Your task to perform on an android device: remove spam from my inbox in the gmail app Image 0: 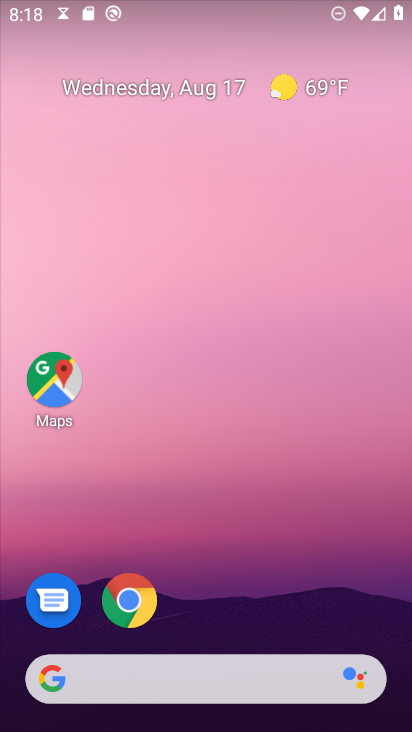
Step 0: press home button
Your task to perform on an android device: remove spam from my inbox in the gmail app Image 1: 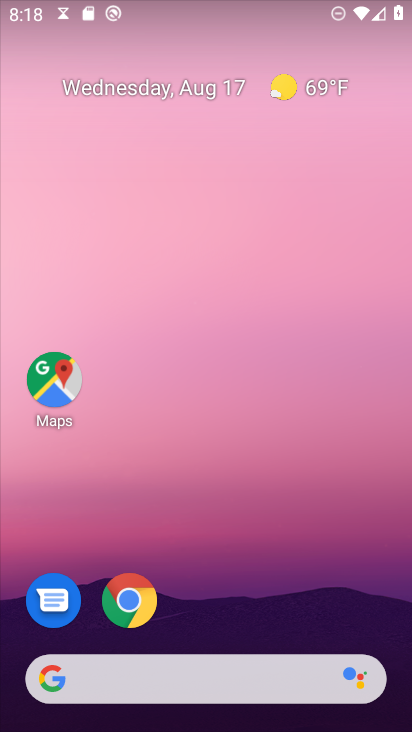
Step 1: drag from (252, 600) to (194, 84)
Your task to perform on an android device: remove spam from my inbox in the gmail app Image 2: 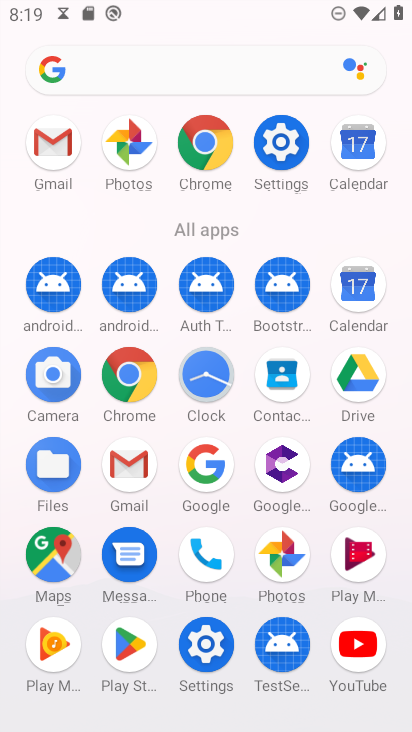
Step 2: click (42, 153)
Your task to perform on an android device: remove spam from my inbox in the gmail app Image 3: 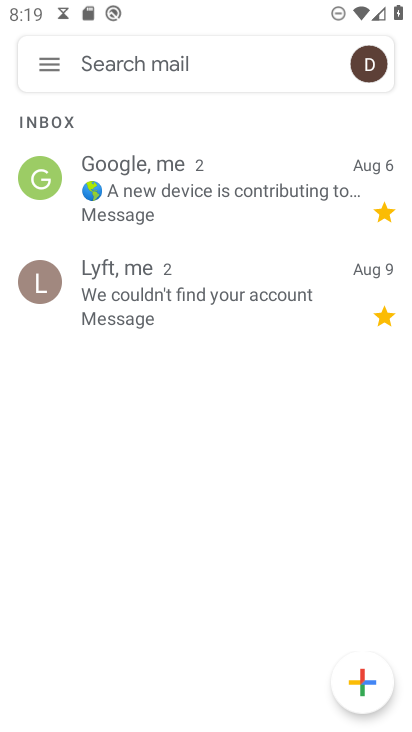
Step 3: click (237, 191)
Your task to perform on an android device: remove spam from my inbox in the gmail app Image 4: 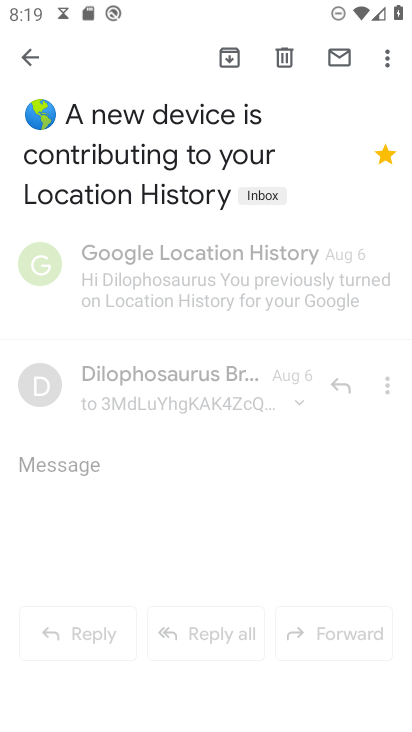
Step 4: click (387, 52)
Your task to perform on an android device: remove spam from my inbox in the gmail app Image 5: 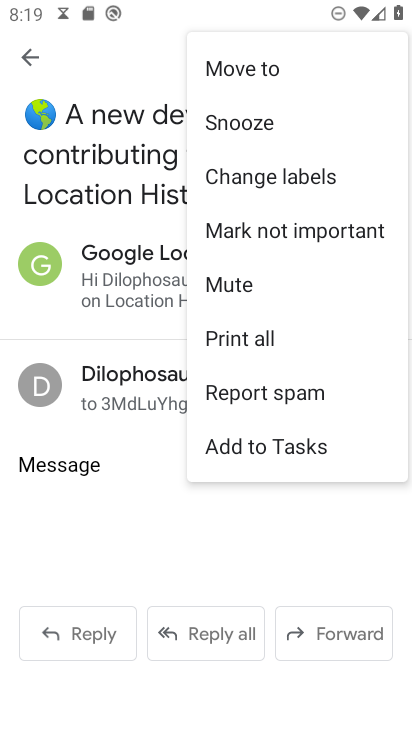
Step 5: click (254, 393)
Your task to perform on an android device: remove spam from my inbox in the gmail app Image 6: 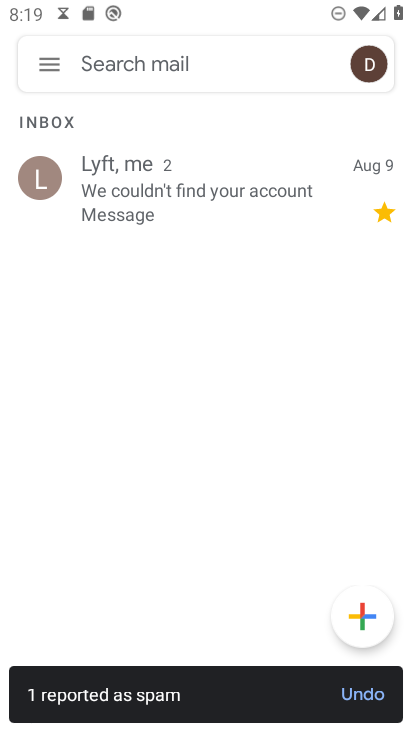
Step 6: task complete